Your task to perform on an android device: install app "NewsBreak: Local News & Alerts" Image 0: 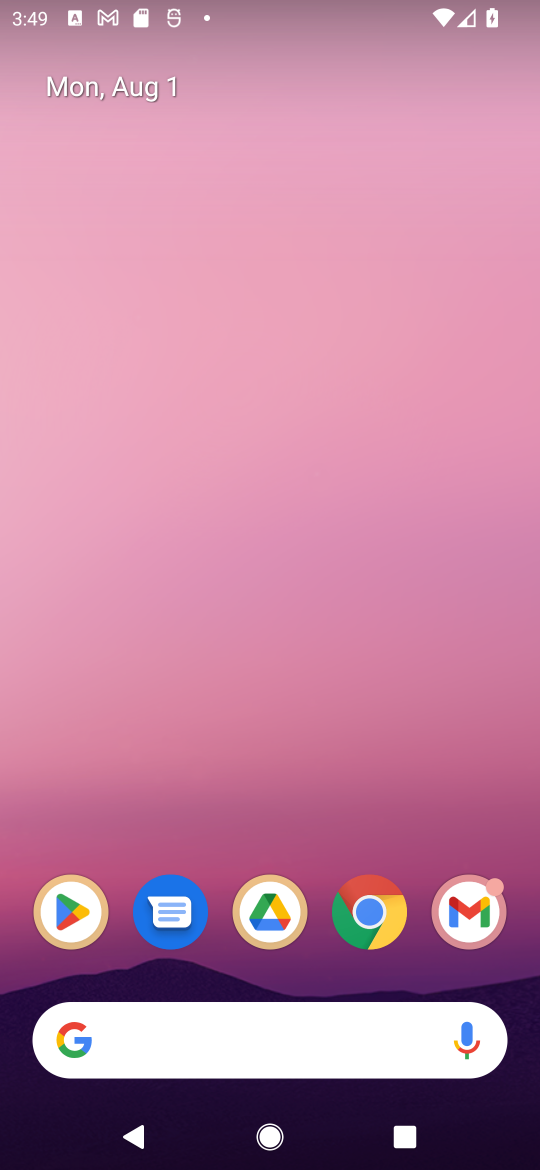
Step 0: click (73, 903)
Your task to perform on an android device: install app "NewsBreak: Local News & Alerts" Image 1: 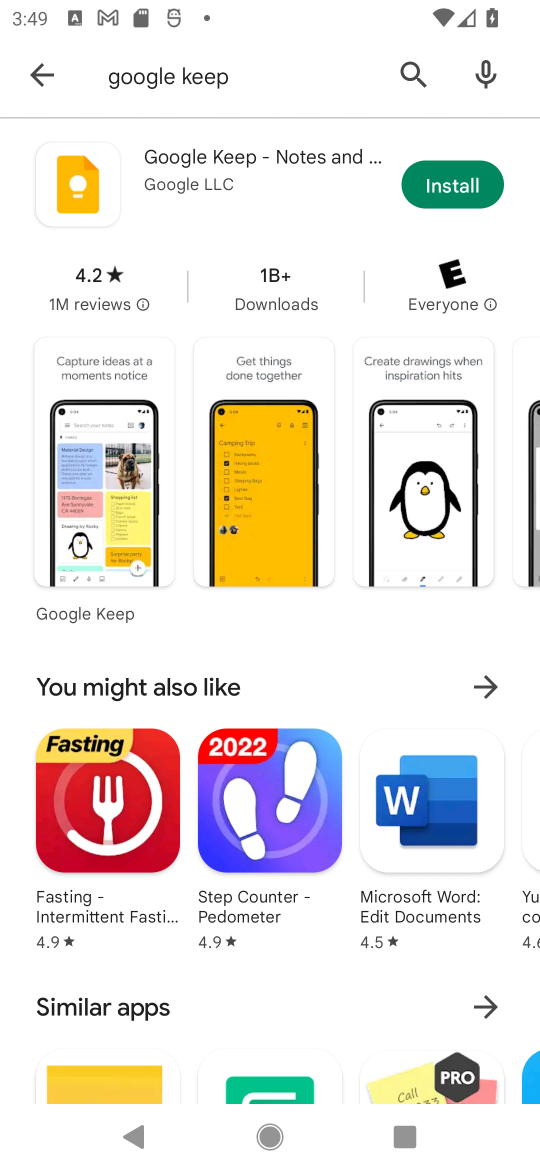
Step 1: click (416, 81)
Your task to perform on an android device: install app "NewsBreak: Local News & Alerts" Image 2: 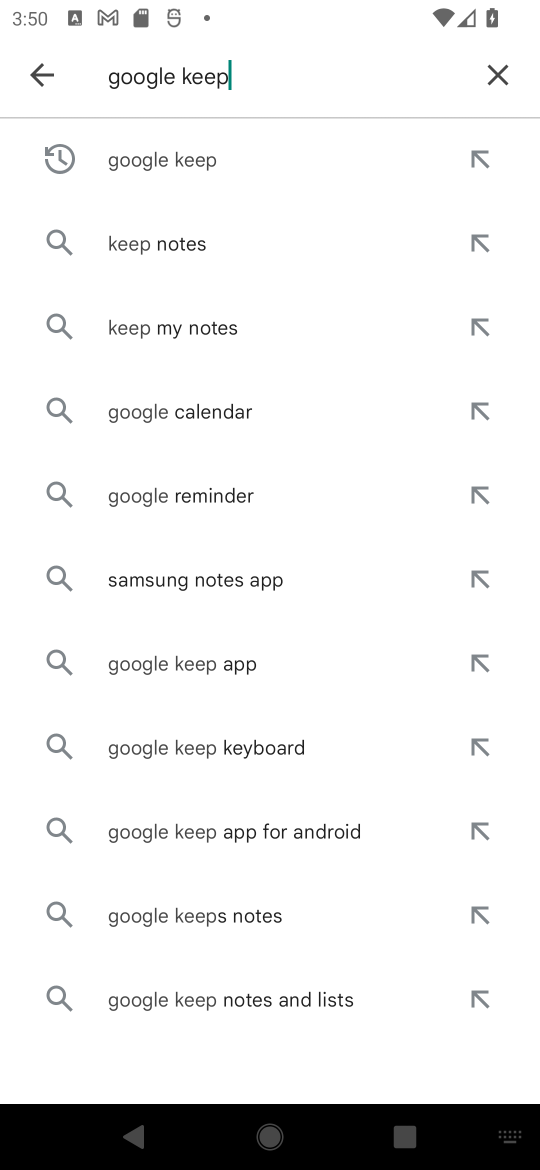
Step 2: click (493, 83)
Your task to perform on an android device: install app "NewsBreak: Local News & Alerts" Image 3: 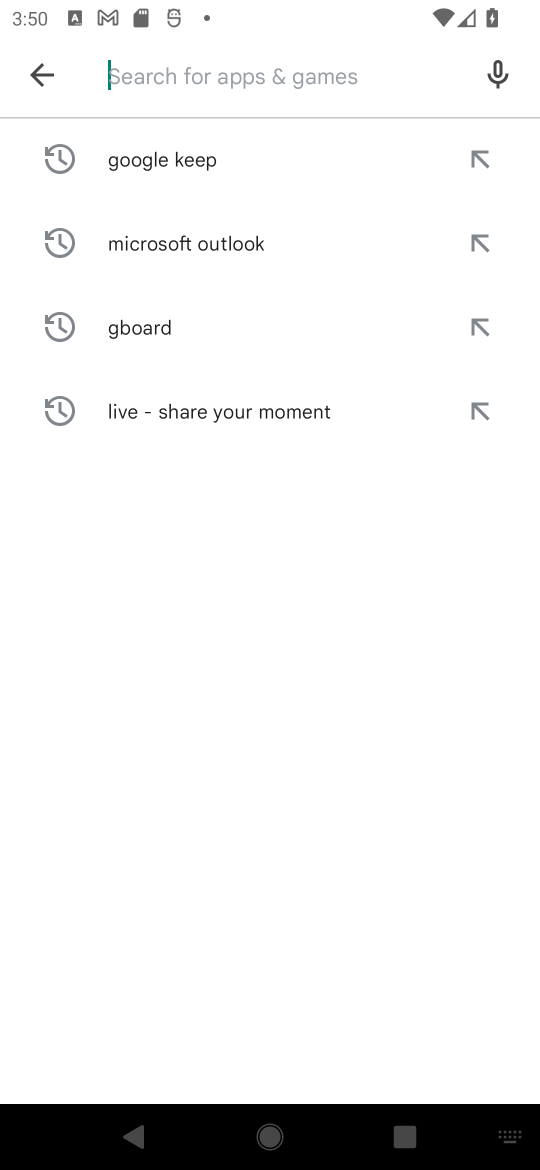
Step 3: type "NewsBreak: Local News & Alerts"
Your task to perform on an android device: install app "NewsBreak: Local News & Alerts" Image 4: 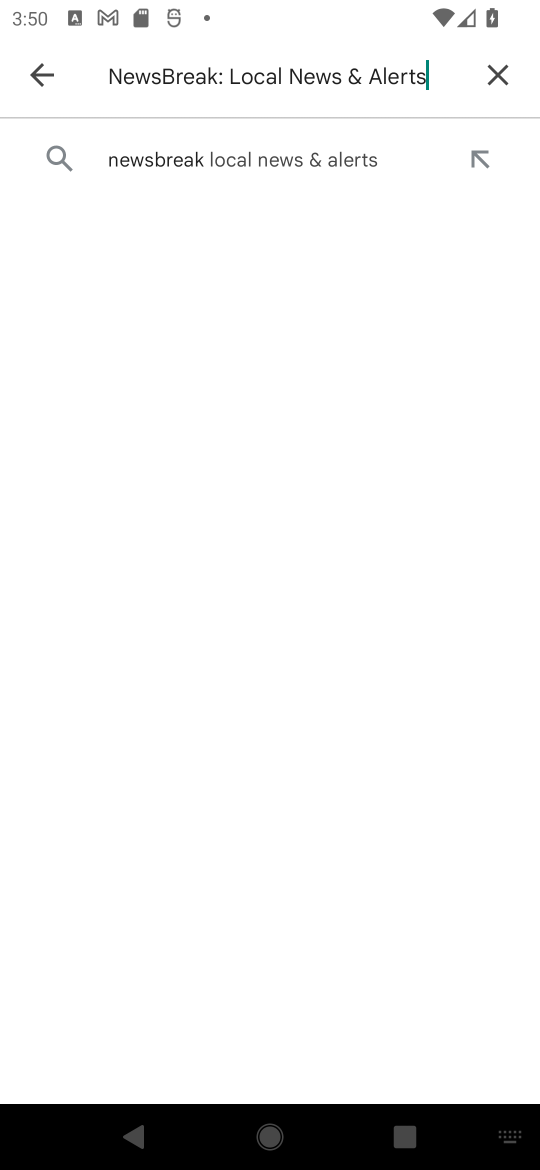
Step 4: click (277, 170)
Your task to perform on an android device: install app "NewsBreak: Local News & Alerts" Image 5: 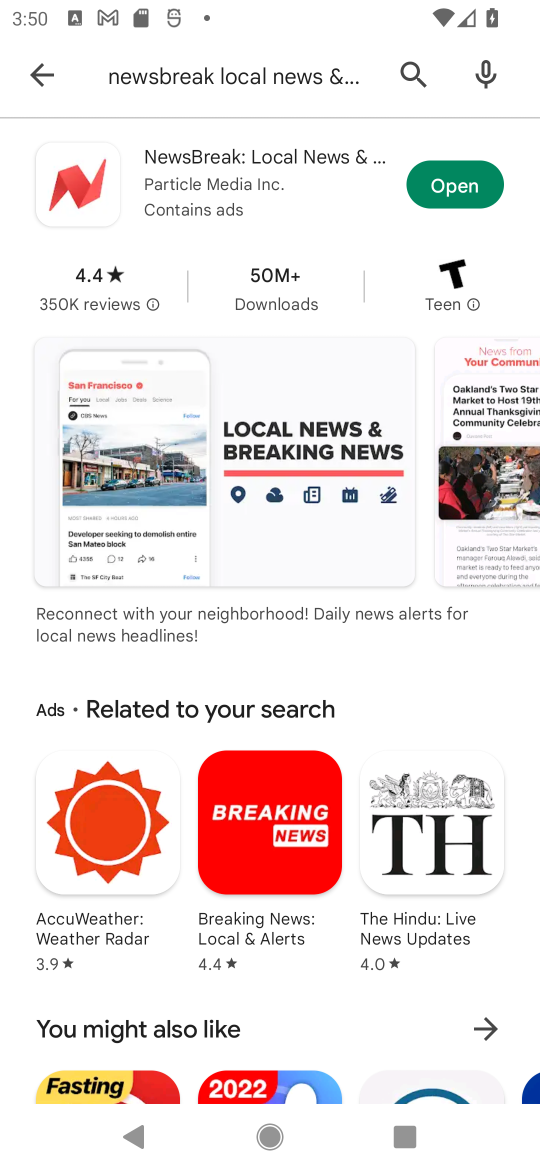
Step 5: task complete